Your task to perform on an android device: set the timer Image 0: 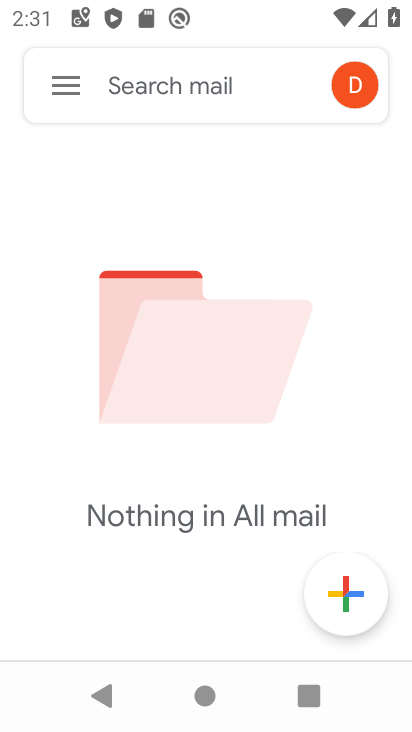
Step 0: press home button
Your task to perform on an android device: set the timer Image 1: 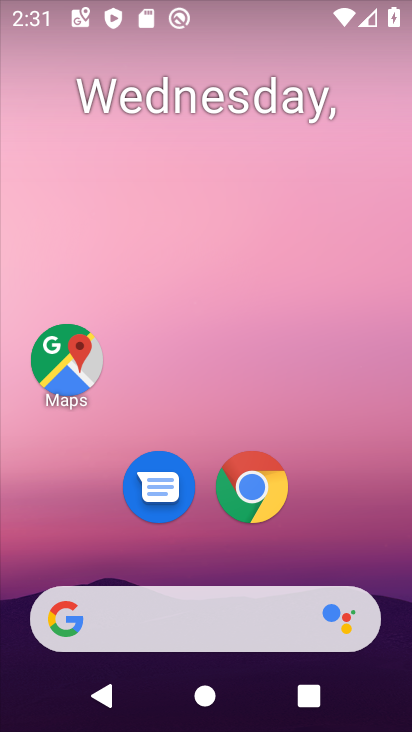
Step 1: drag from (325, 518) to (194, 41)
Your task to perform on an android device: set the timer Image 2: 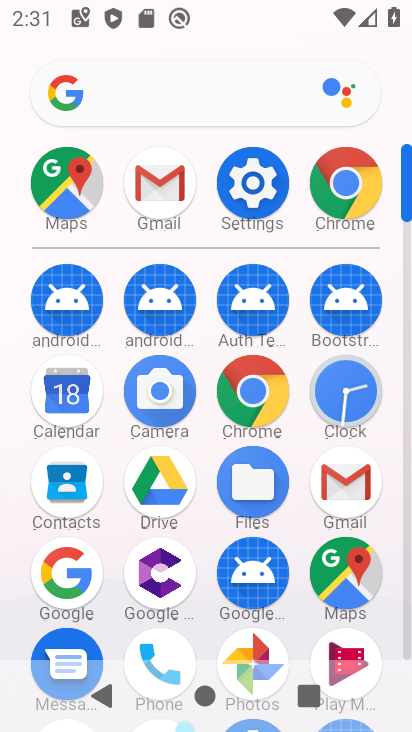
Step 2: click (342, 383)
Your task to perform on an android device: set the timer Image 3: 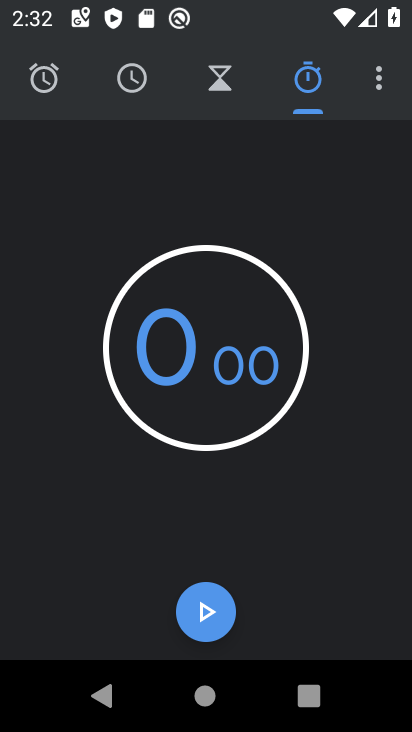
Step 3: click (220, 74)
Your task to perform on an android device: set the timer Image 4: 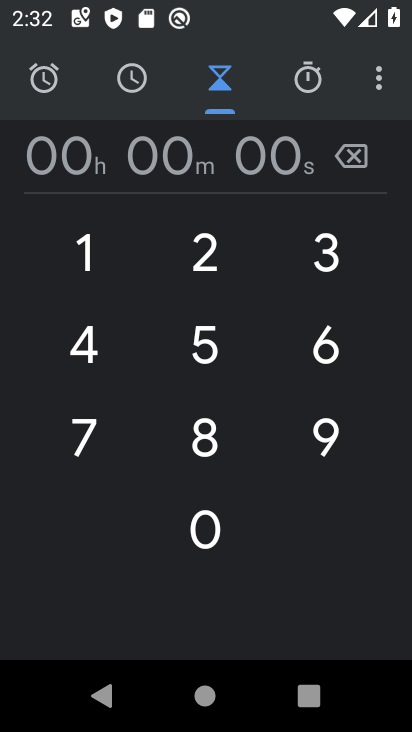
Step 4: click (92, 265)
Your task to perform on an android device: set the timer Image 5: 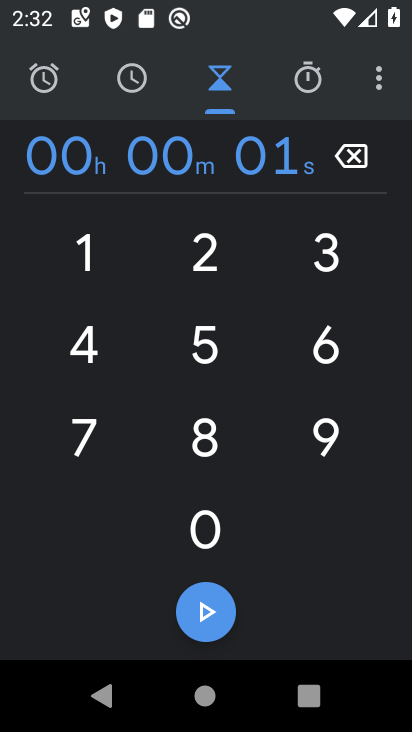
Step 5: click (92, 265)
Your task to perform on an android device: set the timer Image 6: 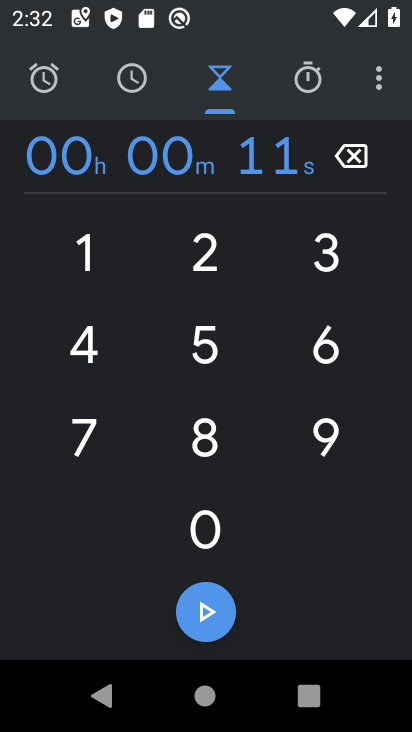
Step 6: click (92, 265)
Your task to perform on an android device: set the timer Image 7: 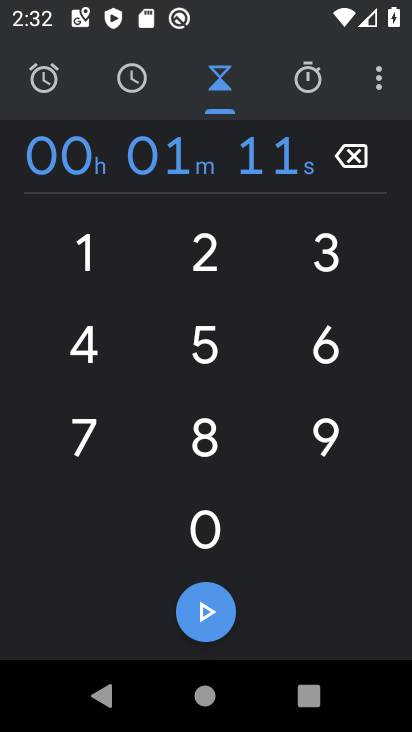
Step 7: click (92, 265)
Your task to perform on an android device: set the timer Image 8: 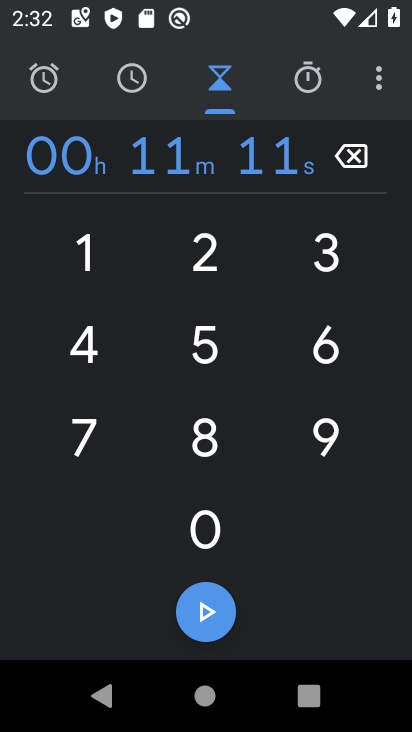
Step 8: click (92, 265)
Your task to perform on an android device: set the timer Image 9: 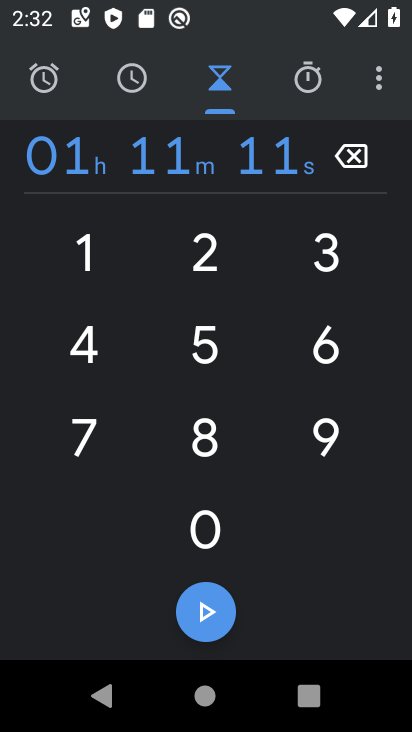
Step 9: task complete